Your task to perform on an android device: Set the phone to "Do not disturb". Image 0: 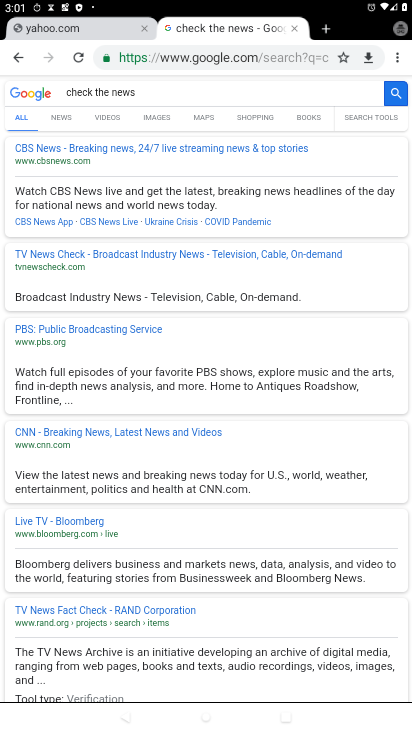
Step 0: press home button
Your task to perform on an android device: Set the phone to "Do not disturb". Image 1: 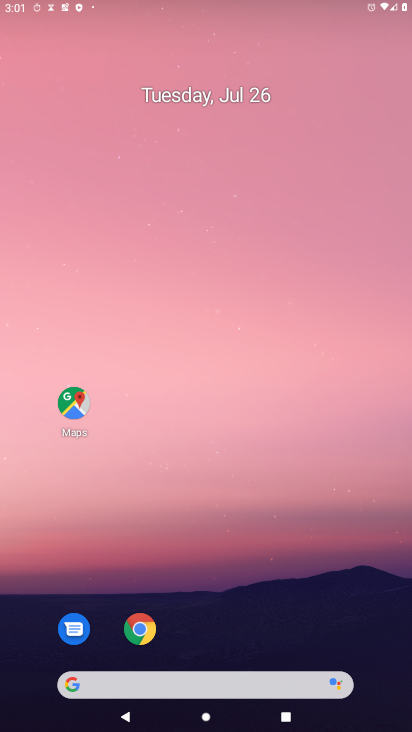
Step 1: drag from (225, 674) to (279, 0)
Your task to perform on an android device: Set the phone to "Do not disturb". Image 2: 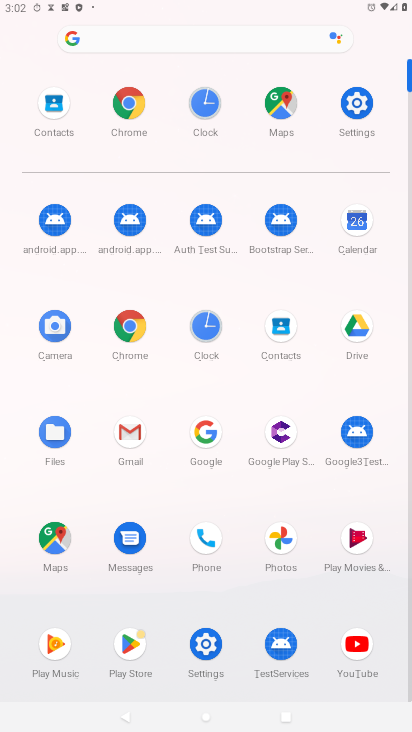
Step 2: click (350, 91)
Your task to perform on an android device: Set the phone to "Do not disturb". Image 3: 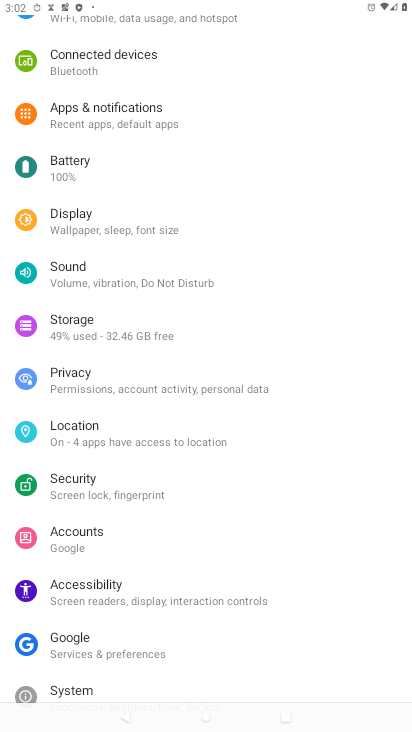
Step 3: click (141, 267)
Your task to perform on an android device: Set the phone to "Do not disturb". Image 4: 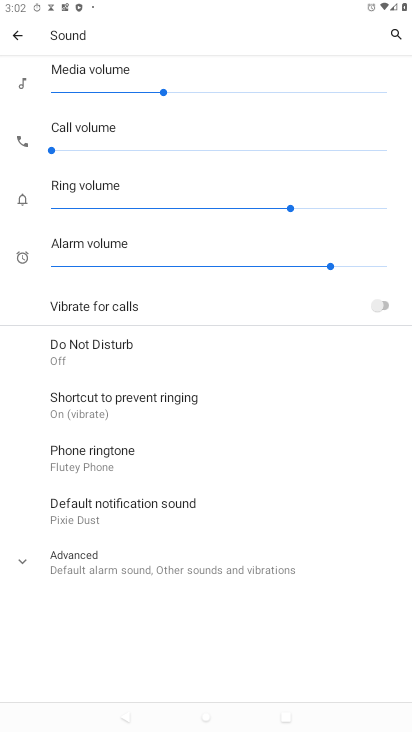
Step 4: click (121, 341)
Your task to perform on an android device: Set the phone to "Do not disturb". Image 5: 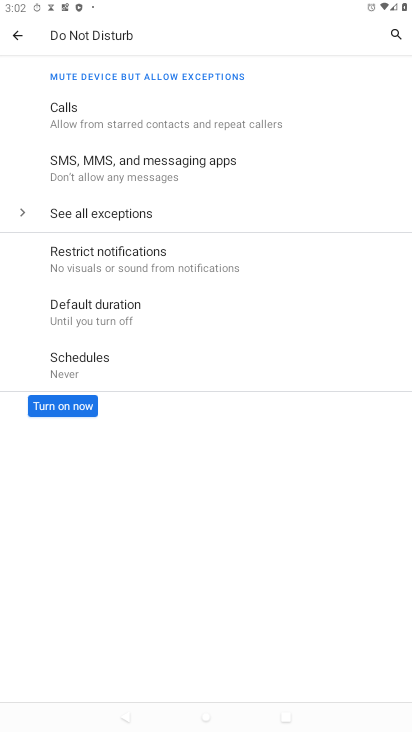
Step 5: click (76, 404)
Your task to perform on an android device: Set the phone to "Do not disturb". Image 6: 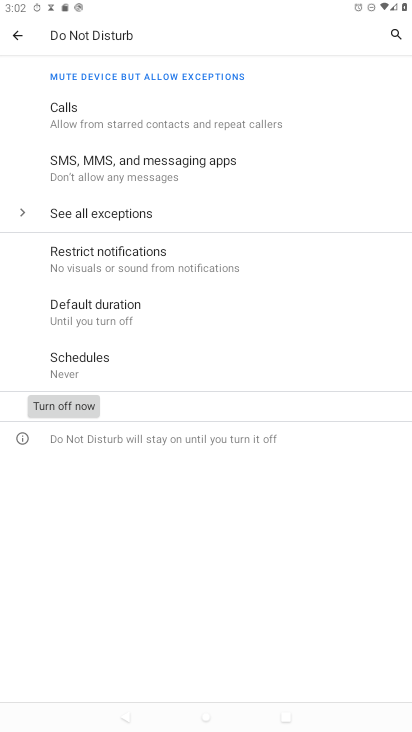
Step 6: task complete